Your task to perform on an android device: change the clock style Image 0: 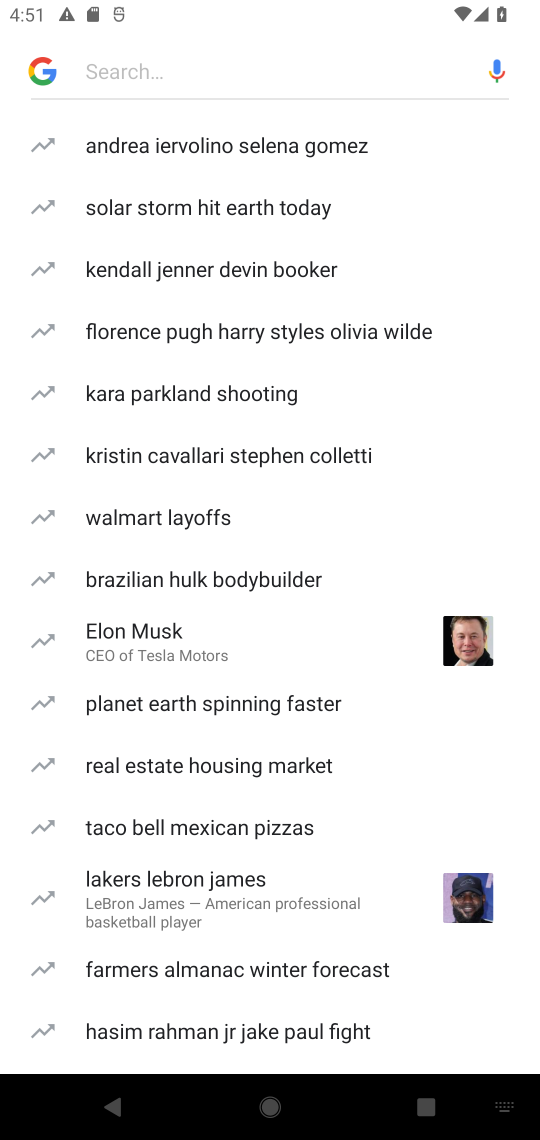
Step 0: press home button
Your task to perform on an android device: change the clock style Image 1: 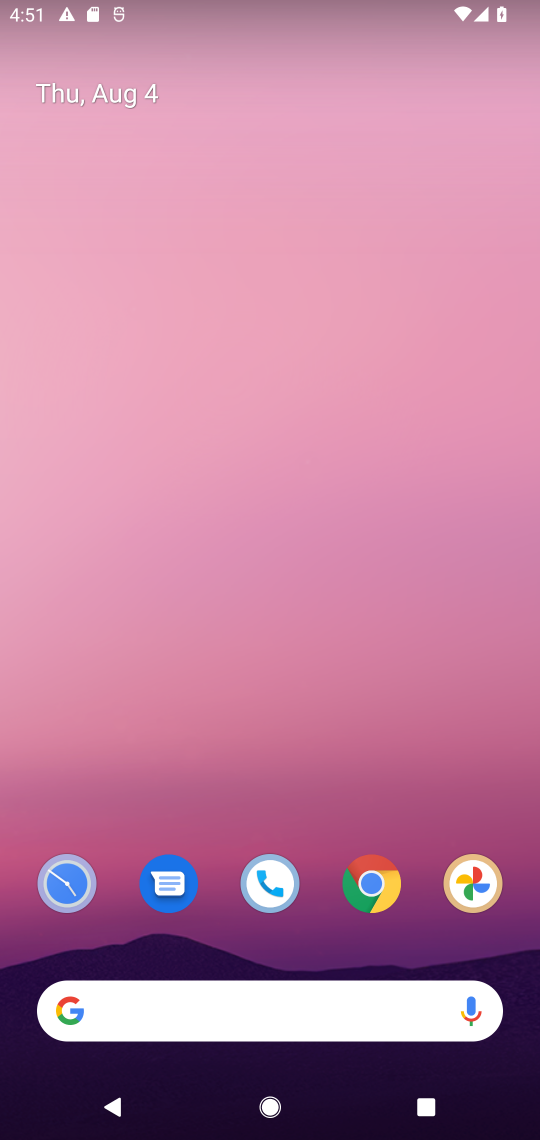
Step 1: drag from (344, 1068) to (92, 50)
Your task to perform on an android device: change the clock style Image 2: 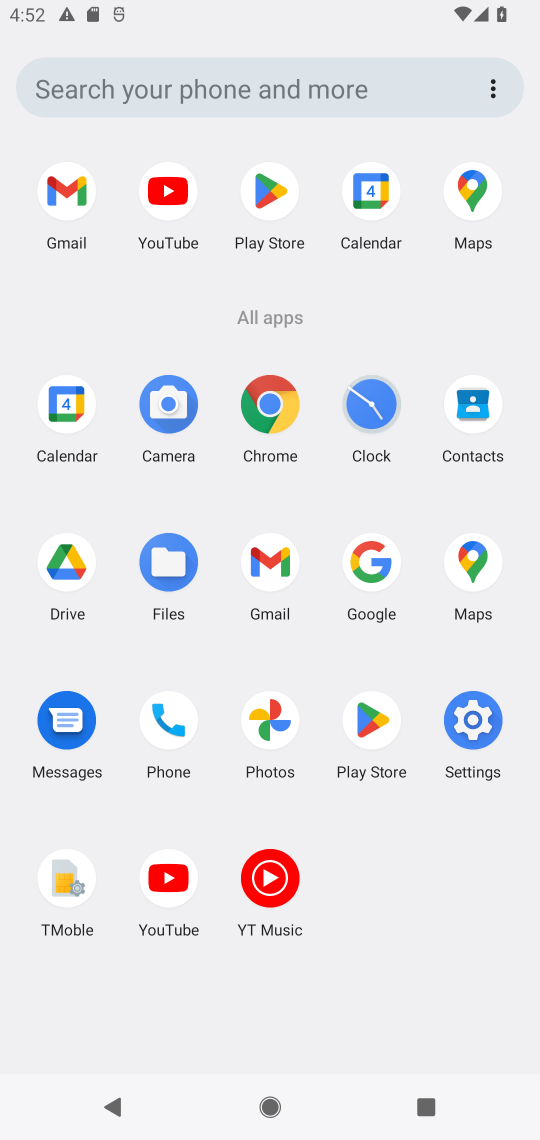
Step 2: click (345, 406)
Your task to perform on an android device: change the clock style Image 3: 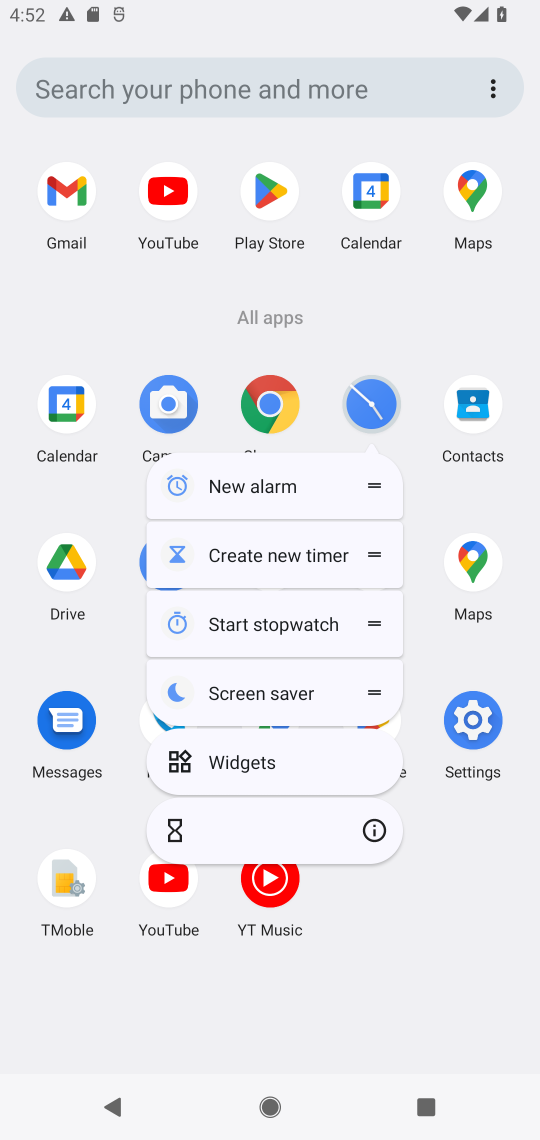
Step 3: click (345, 406)
Your task to perform on an android device: change the clock style Image 4: 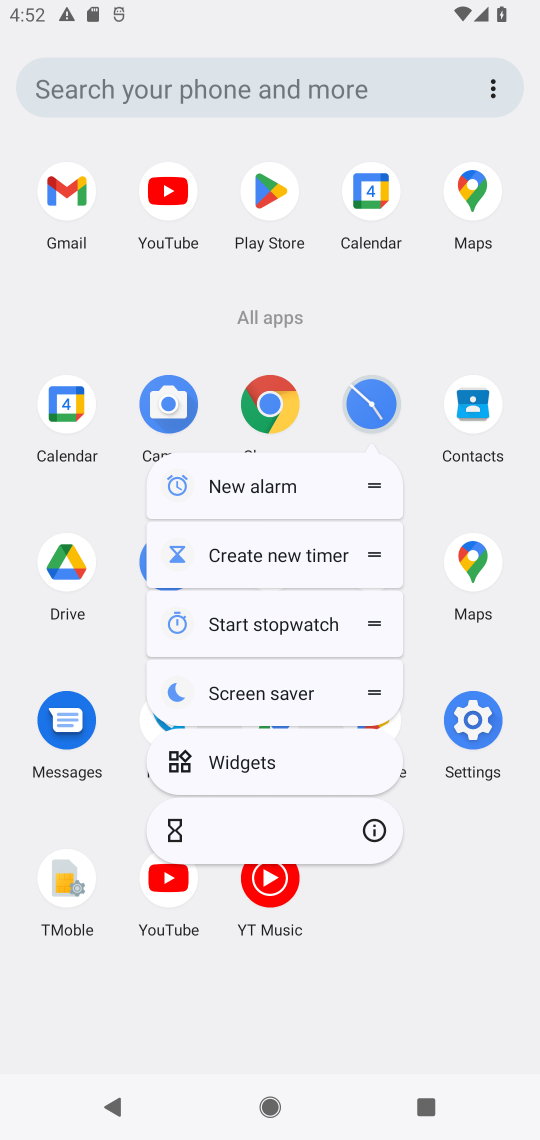
Step 4: click (345, 406)
Your task to perform on an android device: change the clock style Image 5: 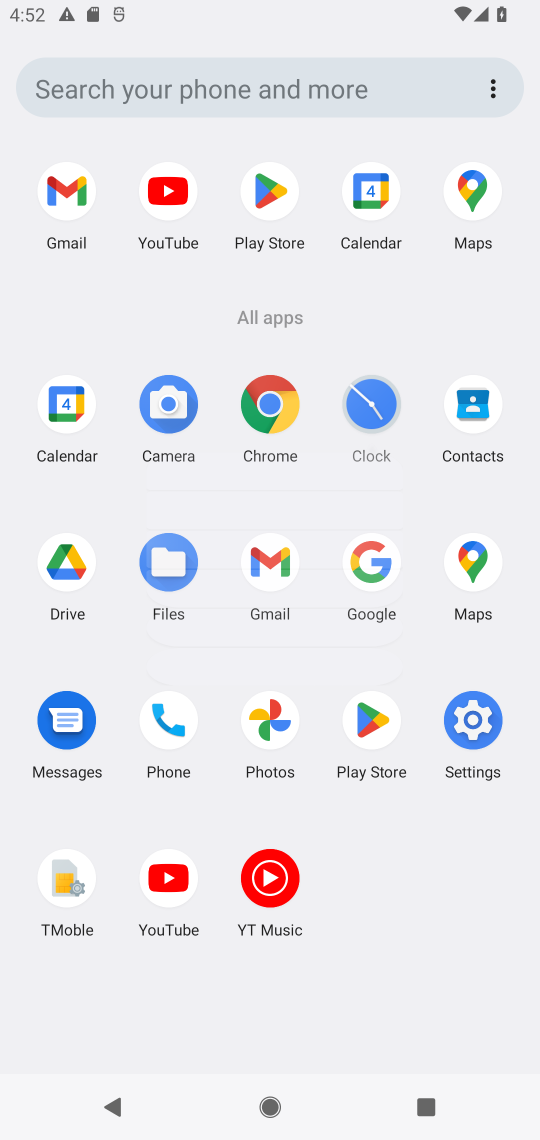
Step 5: click (345, 406)
Your task to perform on an android device: change the clock style Image 6: 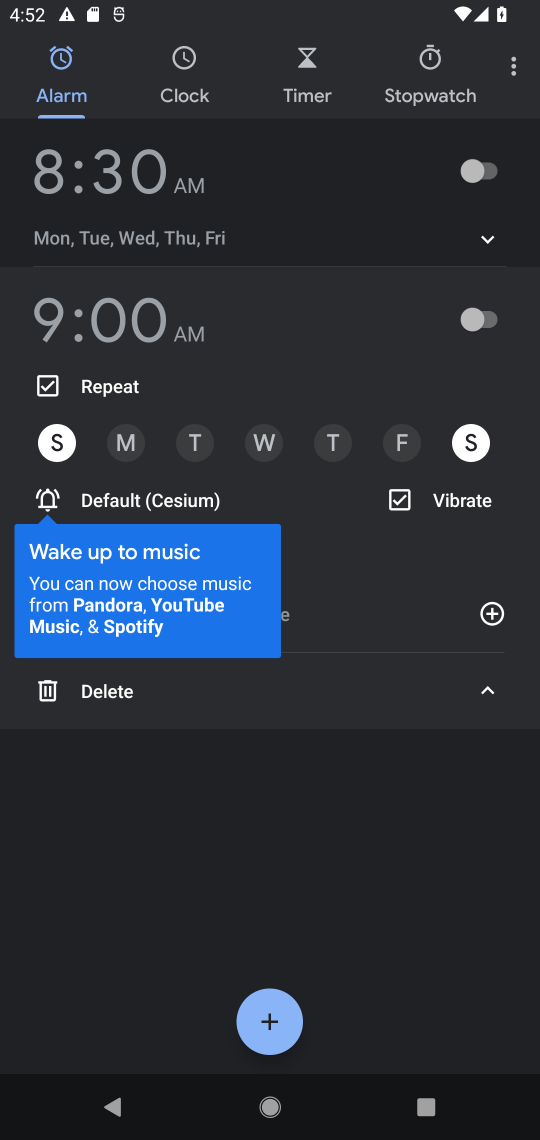
Step 6: click (515, 56)
Your task to perform on an android device: change the clock style Image 7: 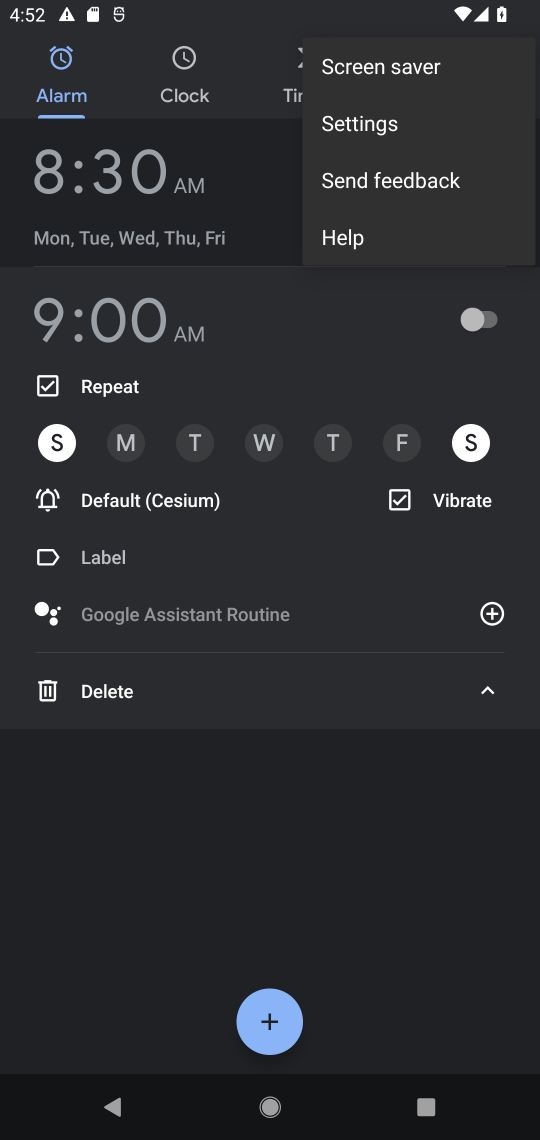
Step 7: click (353, 121)
Your task to perform on an android device: change the clock style Image 8: 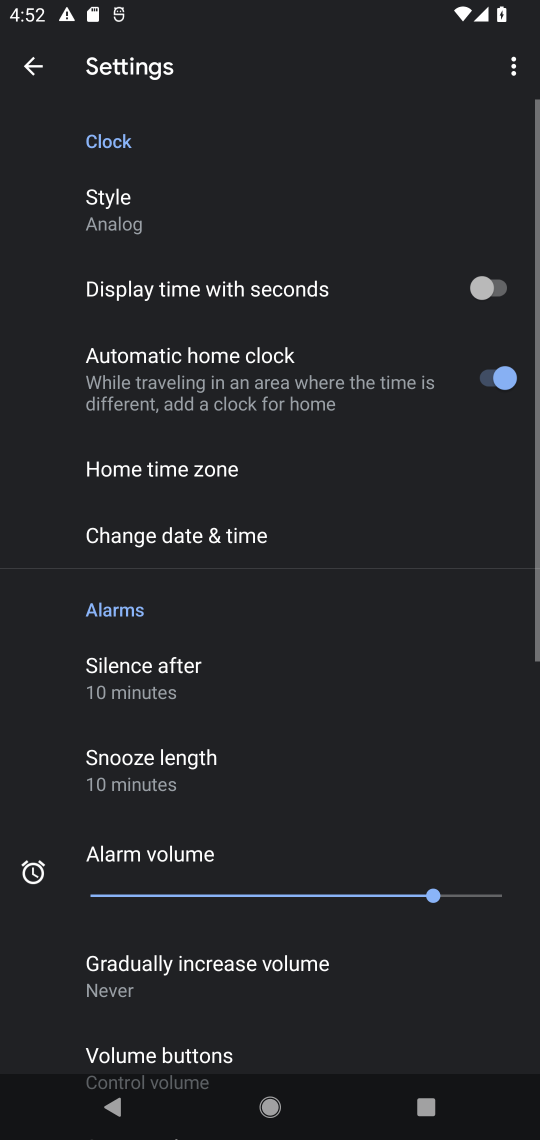
Step 8: click (279, 200)
Your task to perform on an android device: change the clock style Image 9: 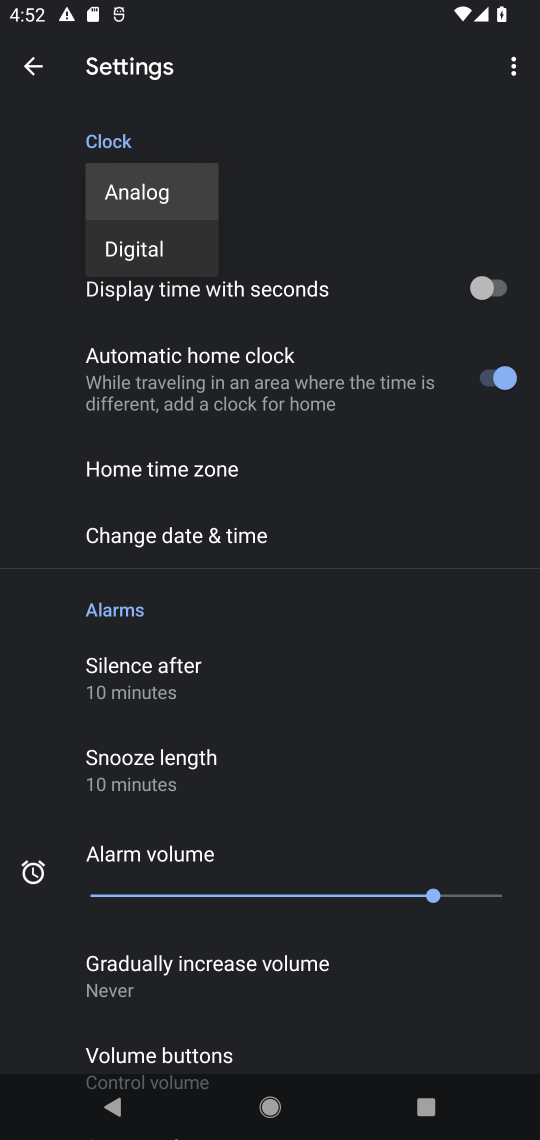
Step 9: click (168, 245)
Your task to perform on an android device: change the clock style Image 10: 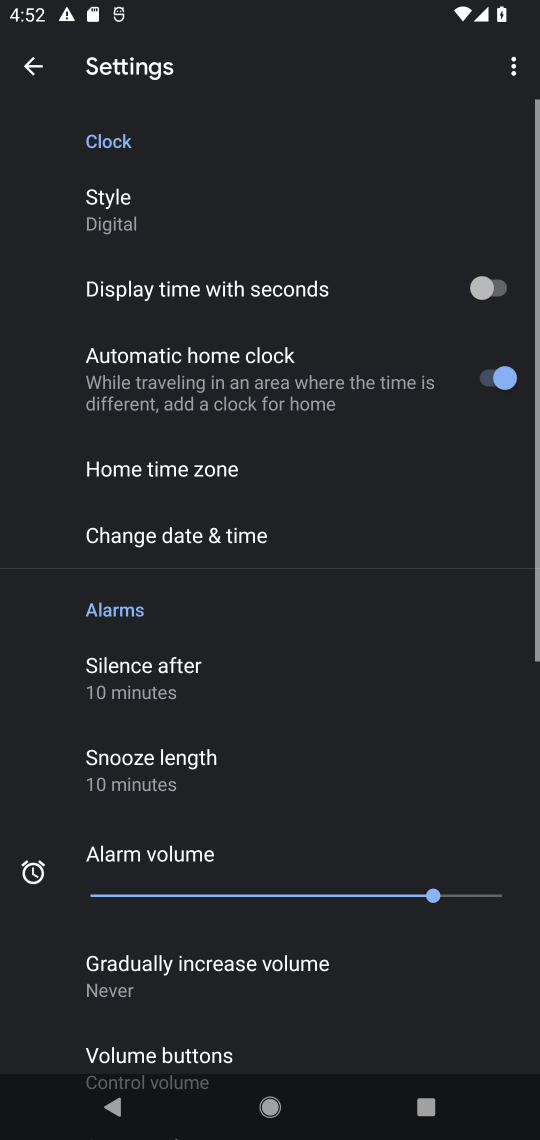
Step 10: task complete